Your task to perform on an android device: turn off smart reply in the gmail app Image 0: 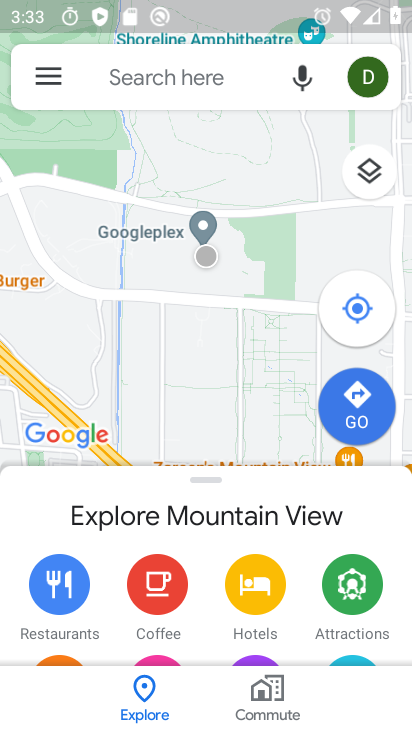
Step 0: press home button
Your task to perform on an android device: turn off smart reply in the gmail app Image 1: 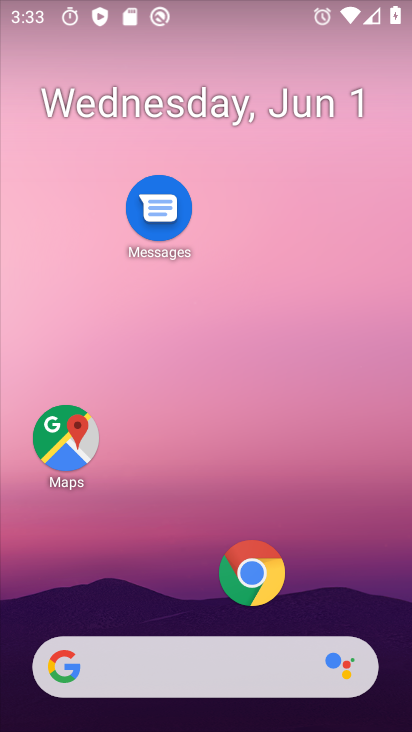
Step 1: drag from (162, 603) to (200, 257)
Your task to perform on an android device: turn off smart reply in the gmail app Image 2: 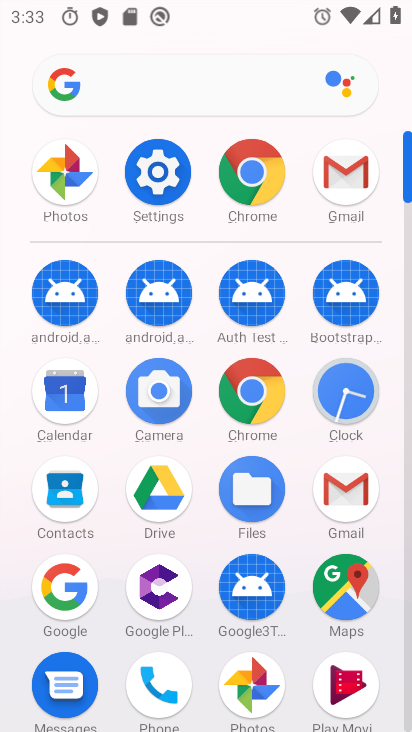
Step 2: click (319, 178)
Your task to perform on an android device: turn off smart reply in the gmail app Image 3: 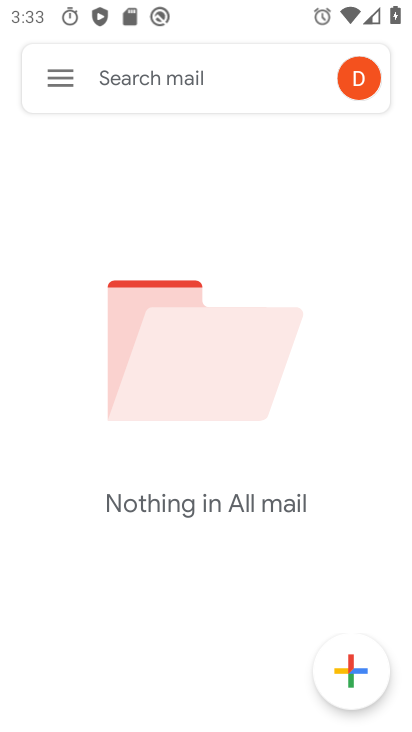
Step 3: click (49, 90)
Your task to perform on an android device: turn off smart reply in the gmail app Image 4: 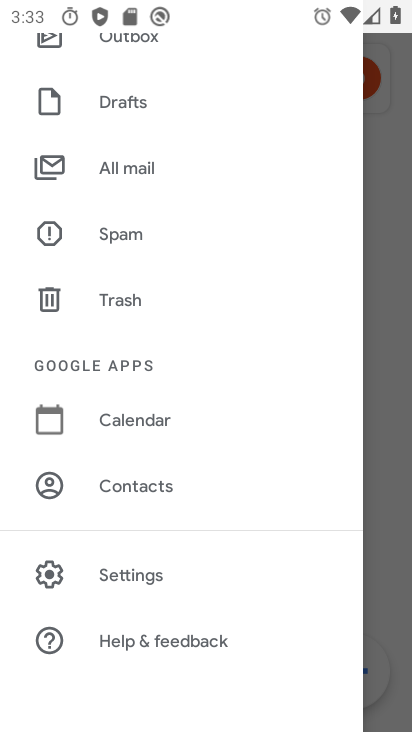
Step 4: click (146, 557)
Your task to perform on an android device: turn off smart reply in the gmail app Image 5: 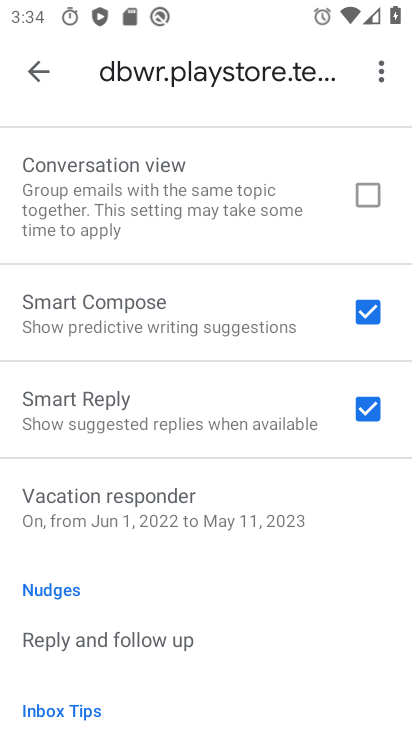
Step 5: click (360, 408)
Your task to perform on an android device: turn off smart reply in the gmail app Image 6: 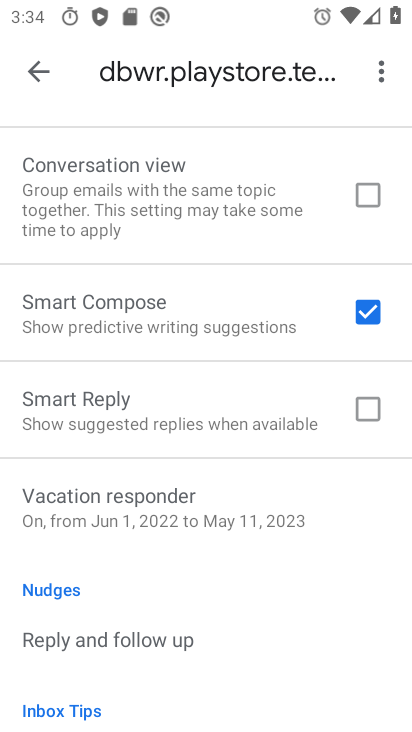
Step 6: task complete